Your task to perform on an android device: Open internet settings Image 0: 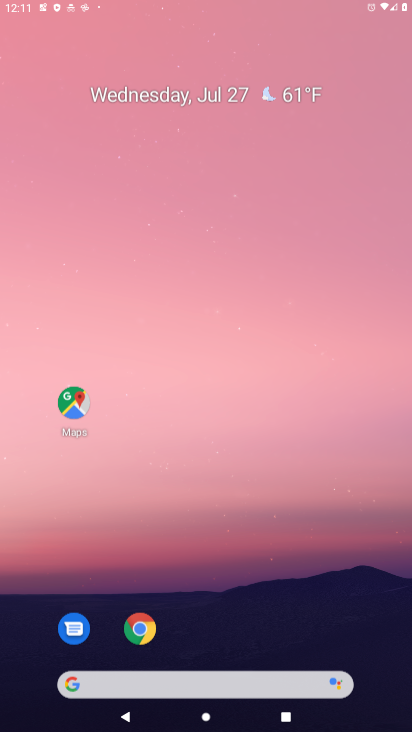
Step 0: click (228, 675)
Your task to perform on an android device: Open internet settings Image 1: 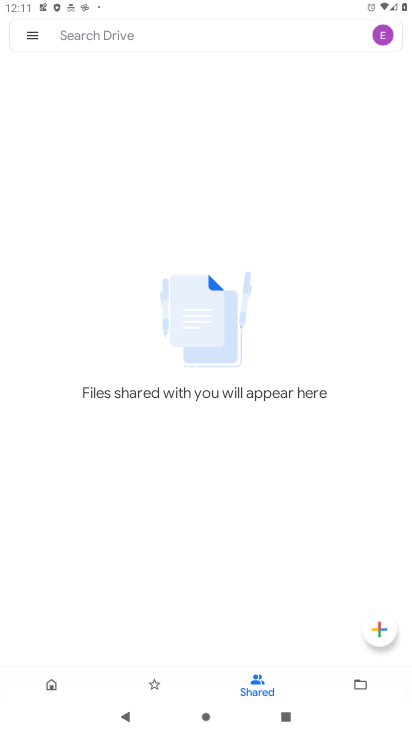
Step 1: type "reddit.com"
Your task to perform on an android device: Open internet settings Image 2: 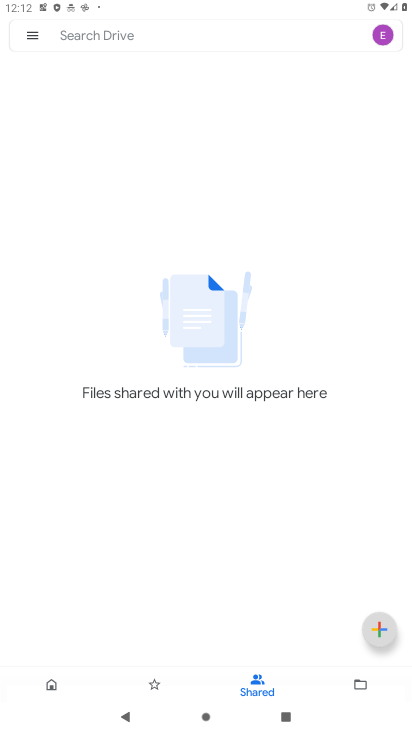
Step 2: task complete